Your task to perform on an android device: check android version Image 0: 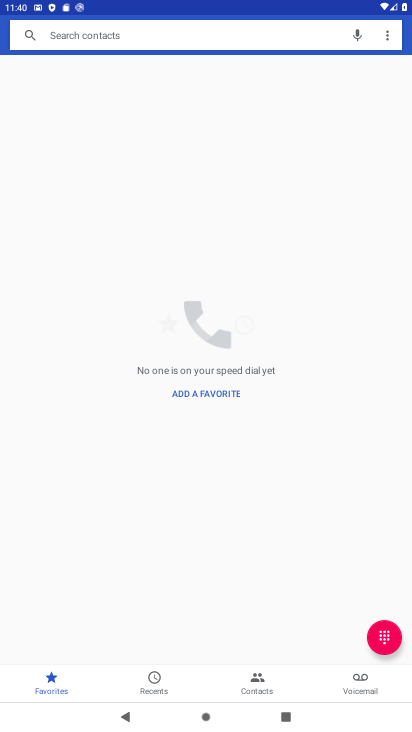
Step 0: press back button
Your task to perform on an android device: check android version Image 1: 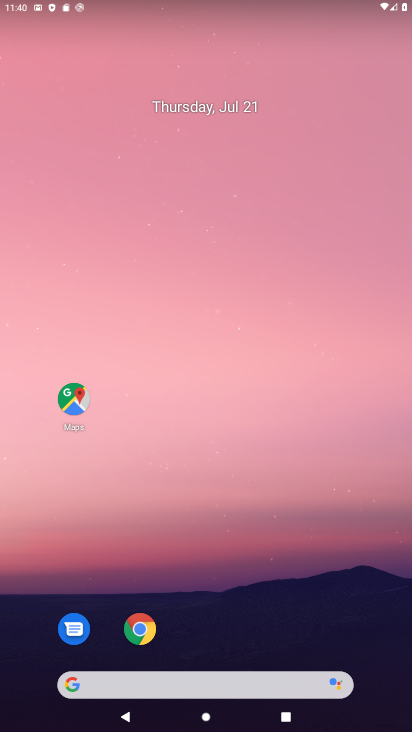
Step 1: click (126, 158)
Your task to perform on an android device: check android version Image 2: 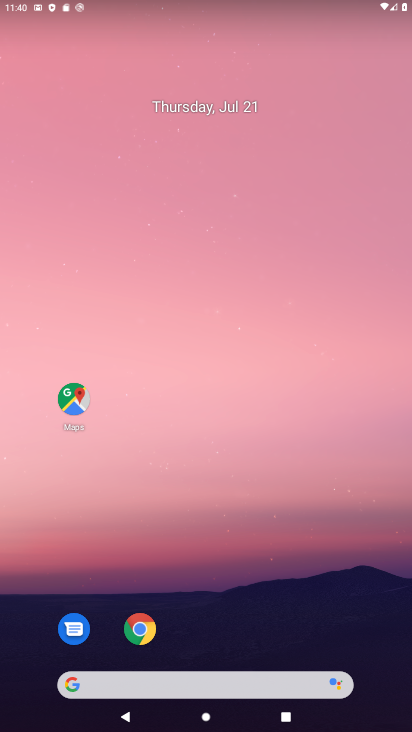
Step 2: click (155, 51)
Your task to perform on an android device: check android version Image 3: 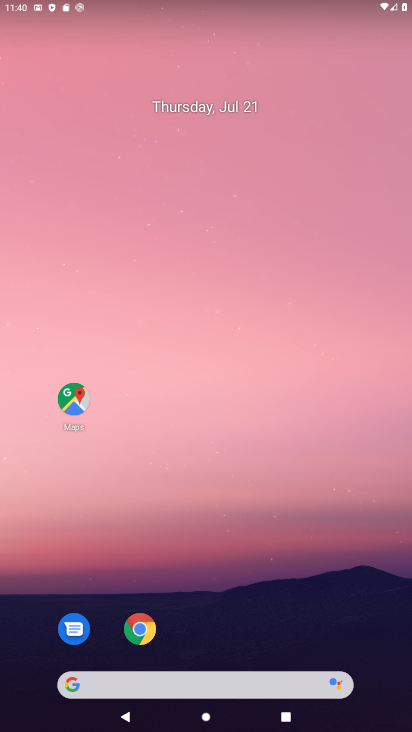
Step 3: drag from (234, 345) to (191, 179)
Your task to perform on an android device: check android version Image 4: 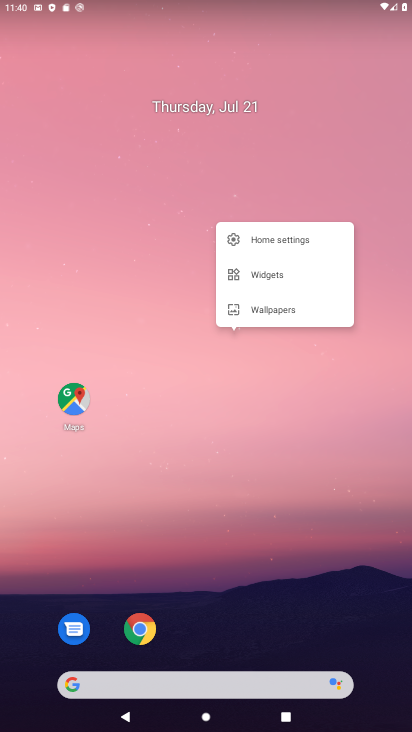
Step 4: click (229, 361)
Your task to perform on an android device: check android version Image 5: 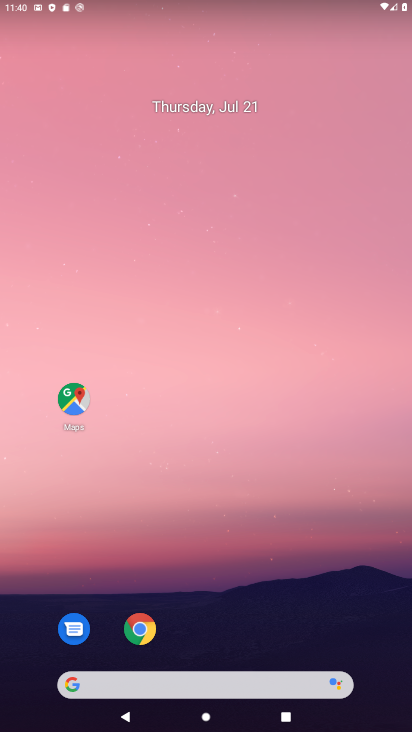
Step 5: drag from (142, 74) to (204, 105)
Your task to perform on an android device: check android version Image 6: 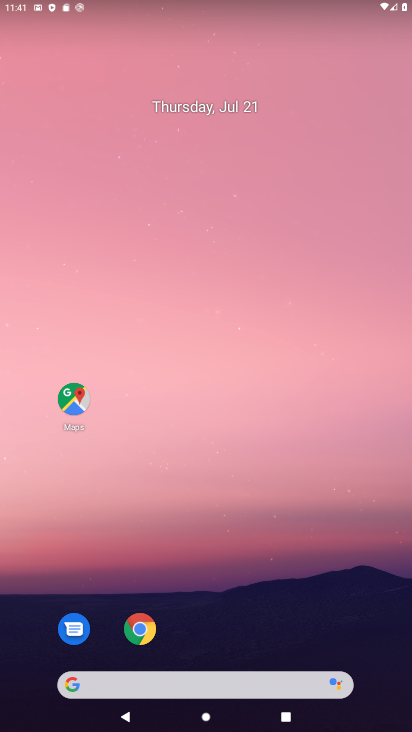
Step 6: drag from (261, 382) to (261, 126)
Your task to perform on an android device: check android version Image 7: 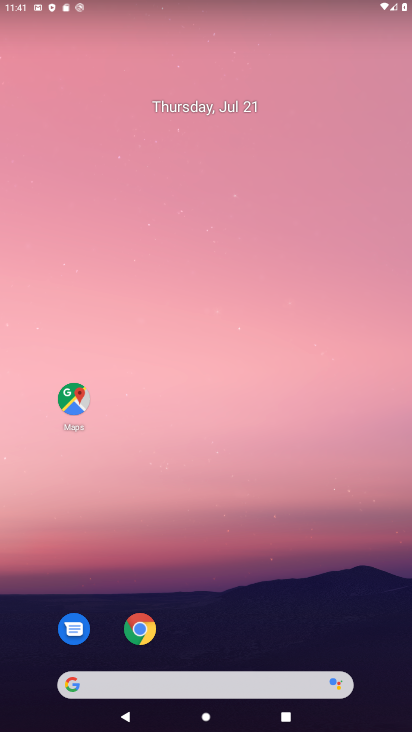
Step 7: drag from (244, 668) to (185, 378)
Your task to perform on an android device: check android version Image 8: 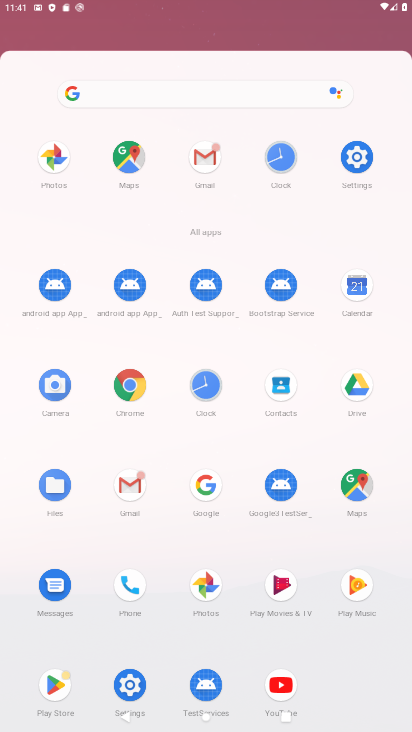
Step 8: drag from (192, 381) to (245, 137)
Your task to perform on an android device: check android version Image 9: 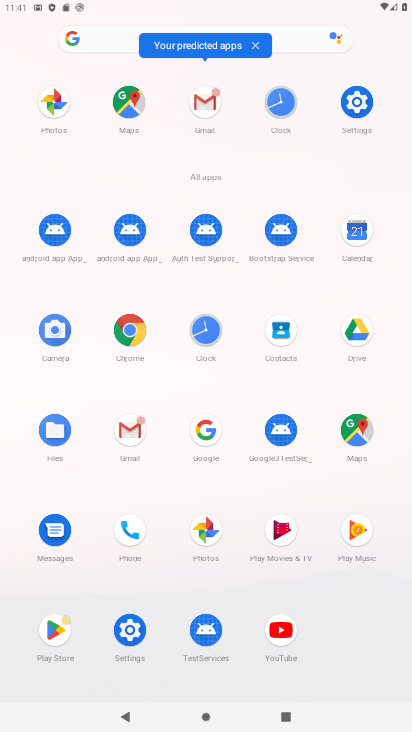
Step 9: drag from (330, 476) to (330, 137)
Your task to perform on an android device: check android version Image 10: 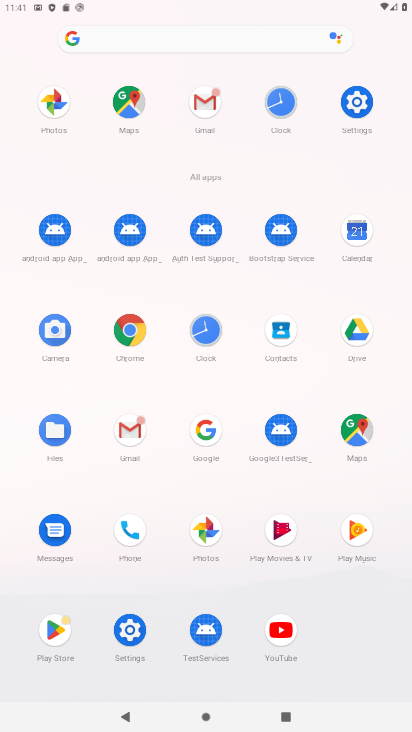
Step 10: click (149, 219)
Your task to perform on an android device: check android version Image 11: 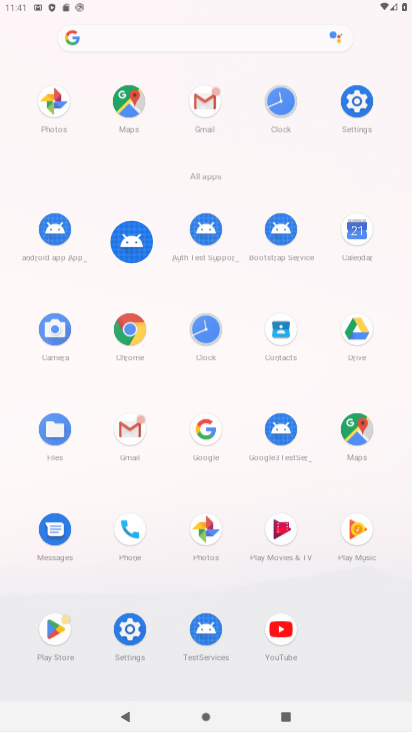
Step 11: drag from (208, 632) to (141, 235)
Your task to perform on an android device: check android version Image 12: 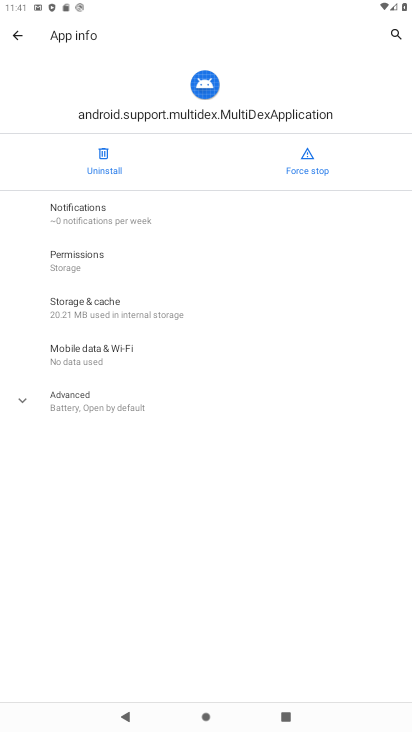
Step 12: click (142, 98)
Your task to perform on an android device: check android version Image 13: 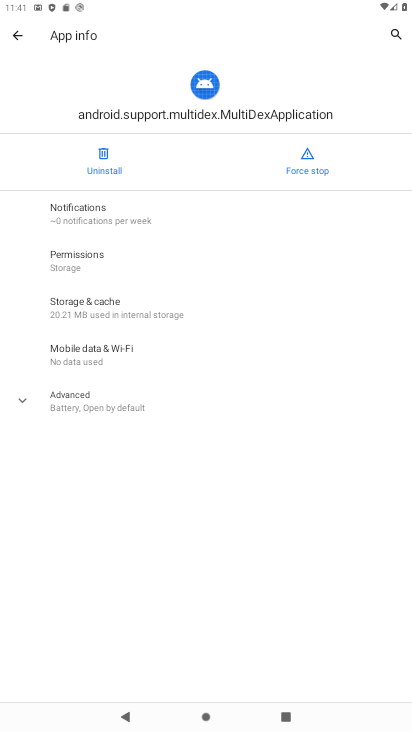
Step 13: drag from (195, 338) to (184, 92)
Your task to perform on an android device: check android version Image 14: 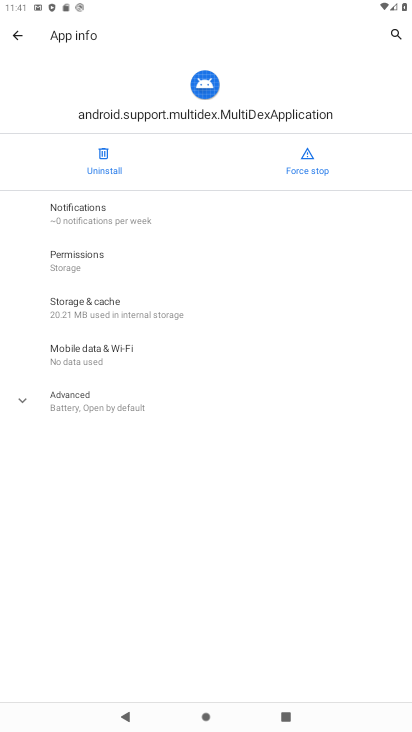
Step 14: click (223, 611)
Your task to perform on an android device: check android version Image 15: 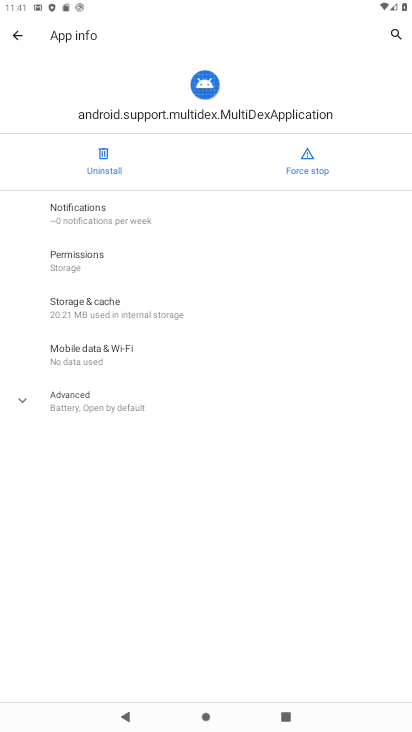
Step 15: drag from (215, 582) to (161, 261)
Your task to perform on an android device: check android version Image 16: 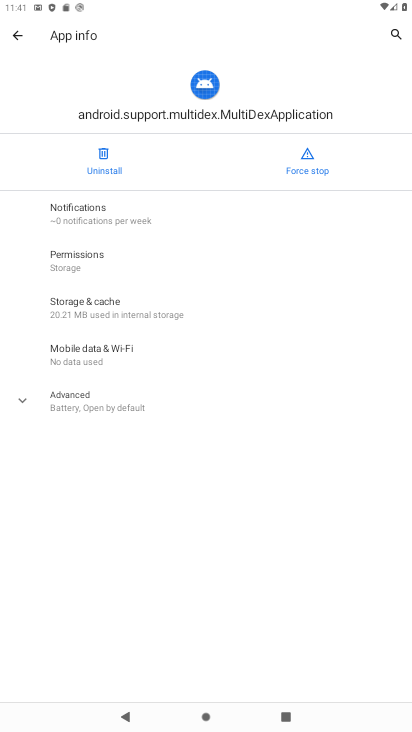
Step 16: drag from (239, 596) to (230, 153)
Your task to perform on an android device: check android version Image 17: 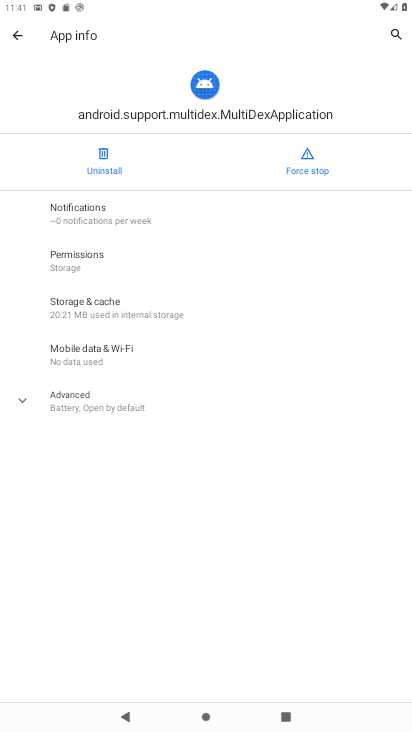
Step 17: click (123, 637)
Your task to perform on an android device: check android version Image 18: 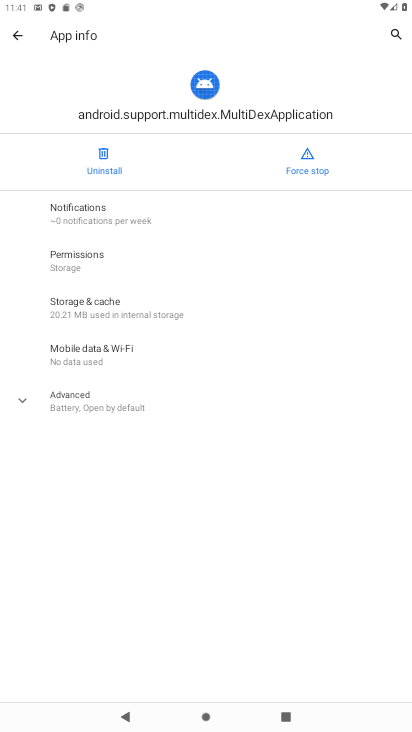
Step 18: click (126, 637)
Your task to perform on an android device: check android version Image 19: 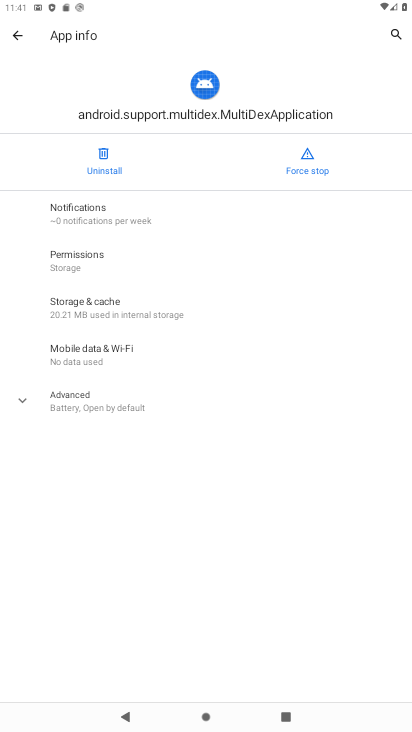
Step 19: task complete